Your task to perform on an android device: turn on the 12-hour format for clock Image 0: 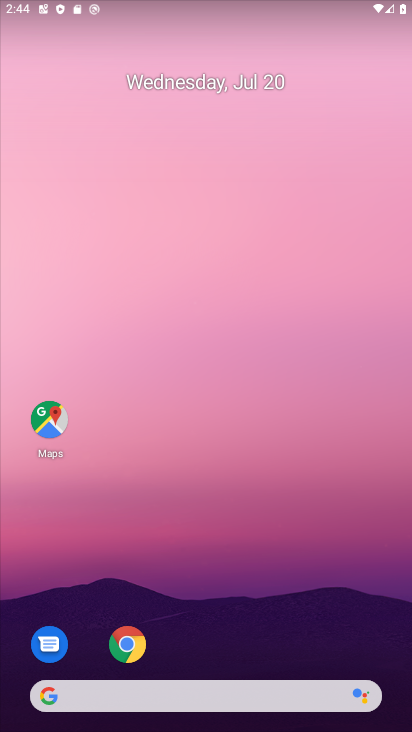
Step 0: drag from (291, 662) to (209, 0)
Your task to perform on an android device: turn on the 12-hour format for clock Image 1: 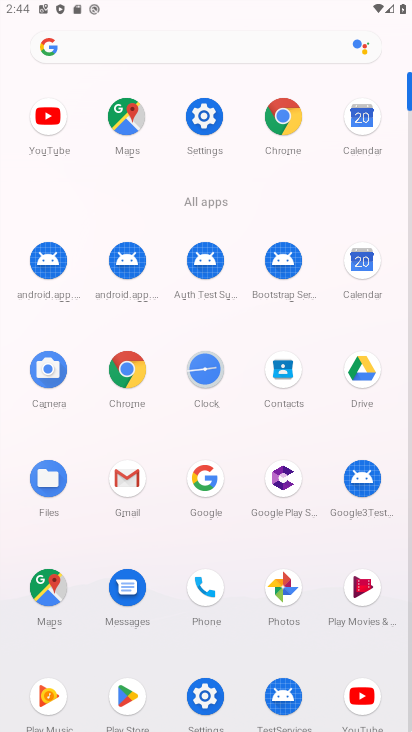
Step 1: click (200, 351)
Your task to perform on an android device: turn on the 12-hour format for clock Image 2: 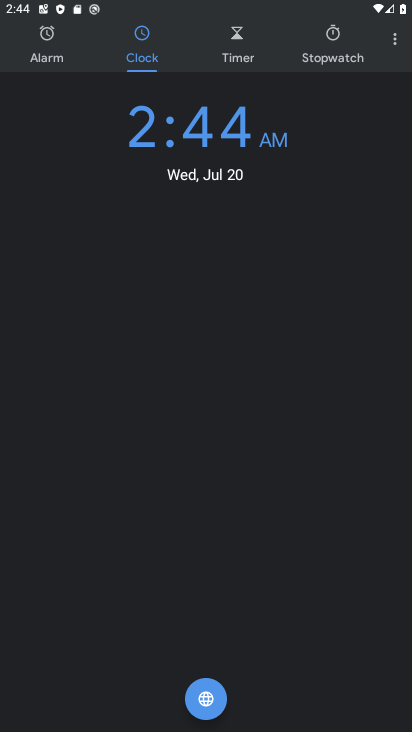
Step 2: click (389, 30)
Your task to perform on an android device: turn on the 12-hour format for clock Image 3: 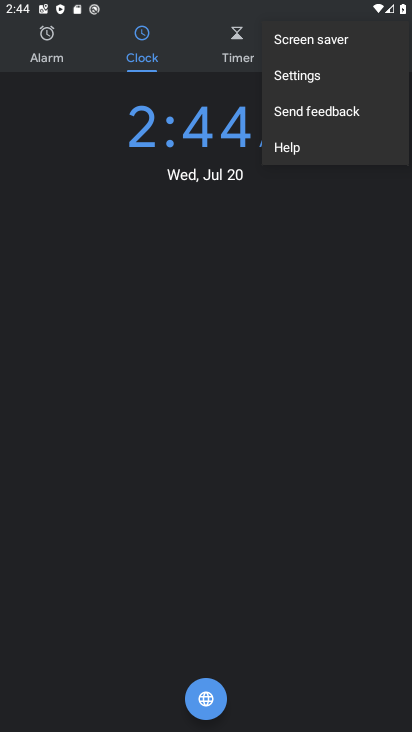
Step 3: click (277, 73)
Your task to perform on an android device: turn on the 12-hour format for clock Image 4: 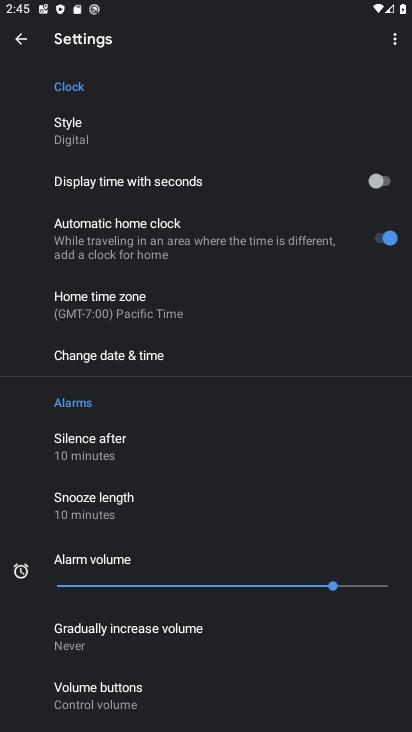
Step 4: click (107, 357)
Your task to perform on an android device: turn on the 12-hour format for clock Image 5: 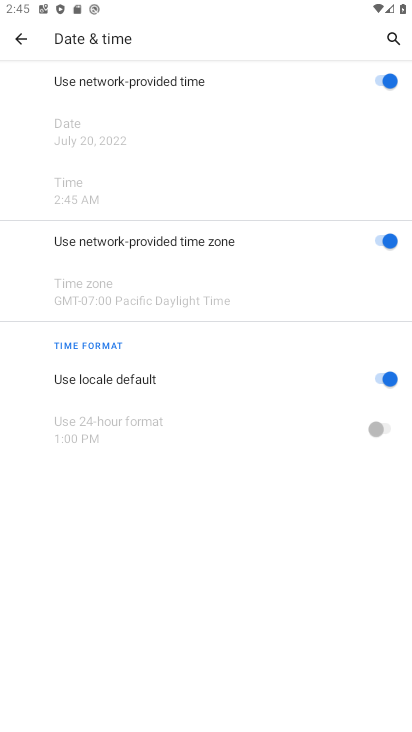
Step 5: click (376, 389)
Your task to perform on an android device: turn on the 12-hour format for clock Image 6: 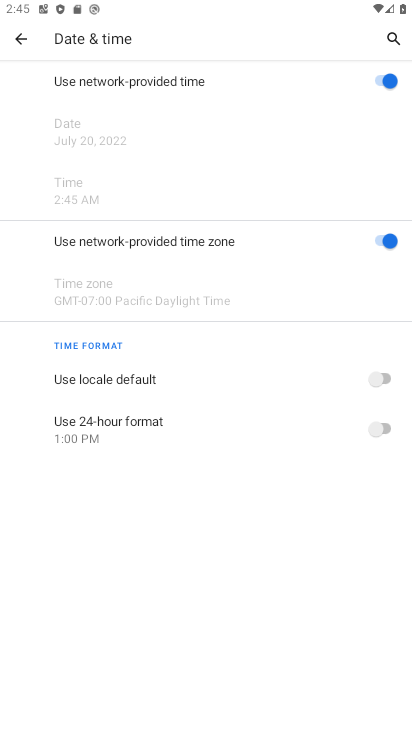
Step 6: task complete